Your task to perform on an android device: check data usage Image 0: 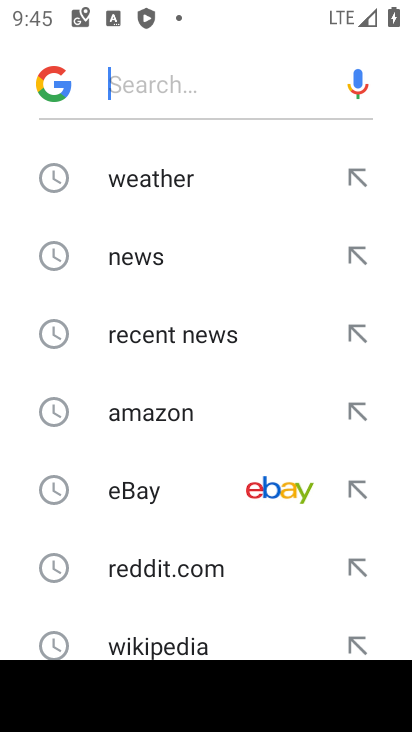
Step 0: press home button
Your task to perform on an android device: check data usage Image 1: 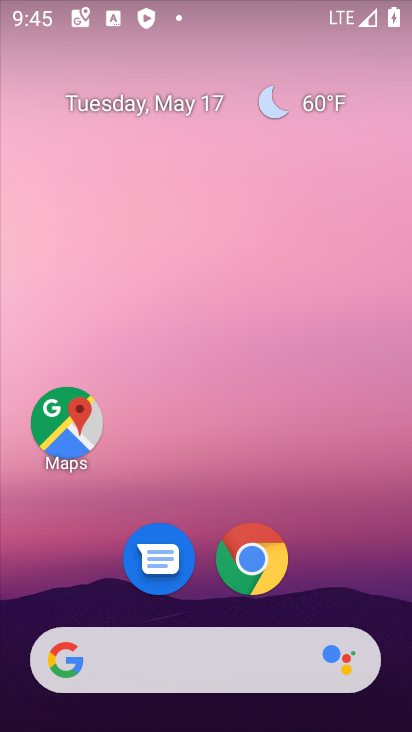
Step 1: drag from (205, 606) to (236, 140)
Your task to perform on an android device: check data usage Image 2: 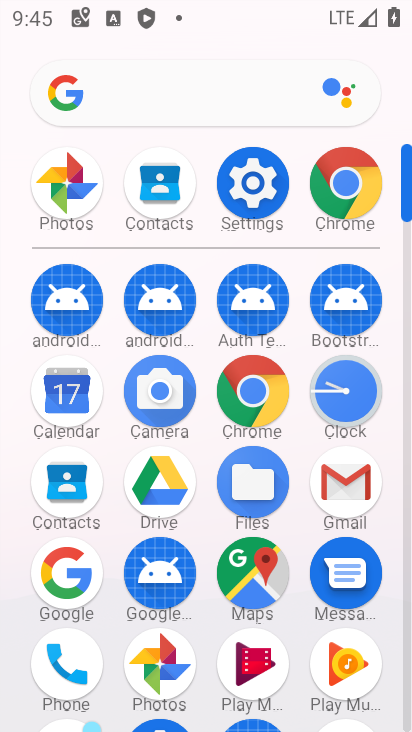
Step 2: click (243, 174)
Your task to perform on an android device: check data usage Image 3: 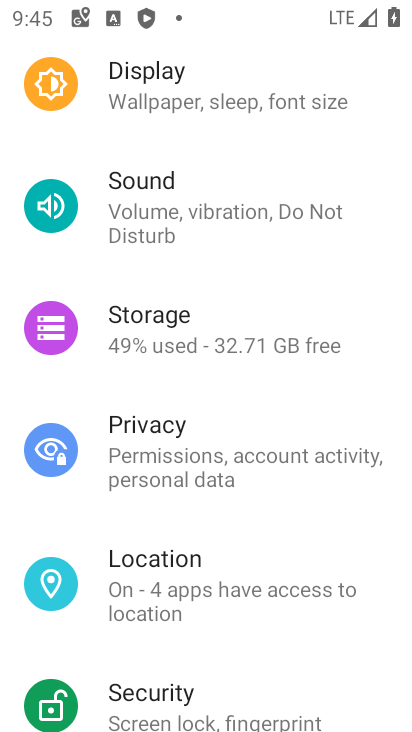
Step 3: drag from (223, 158) to (213, 634)
Your task to perform on an android device: check data usage Image 4: 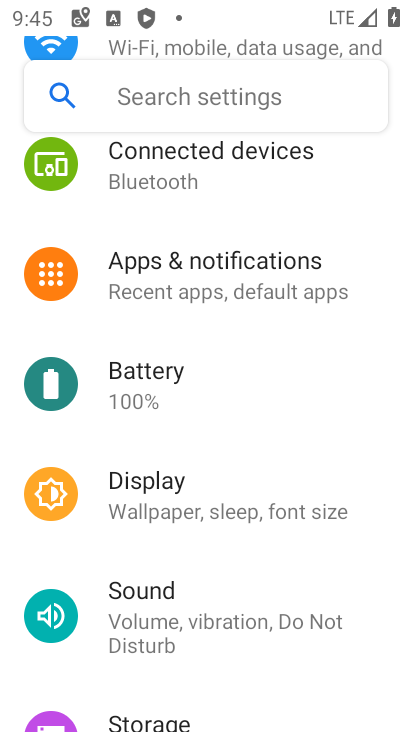
Step 4: drag from (210, 201) to (245, 574)
Your task to perform on an android device: check data usage Image 5: 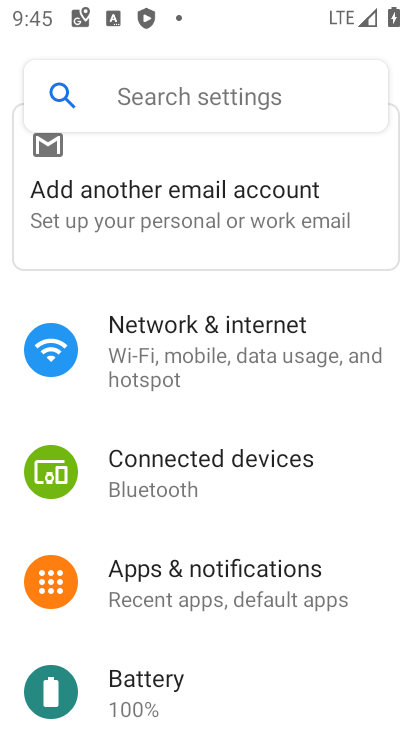
Step 5: click (209, 314)
Your task to perform on an android device: check data usage Image 6: 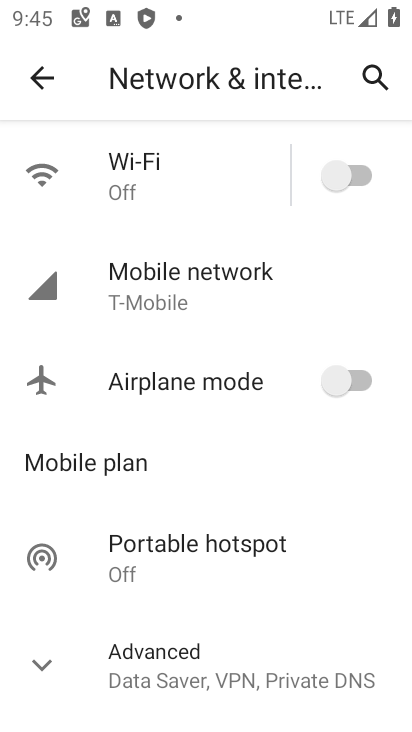
Step 6: click (209, 313)
Your task to perform on an android device: check data usage Image 7: 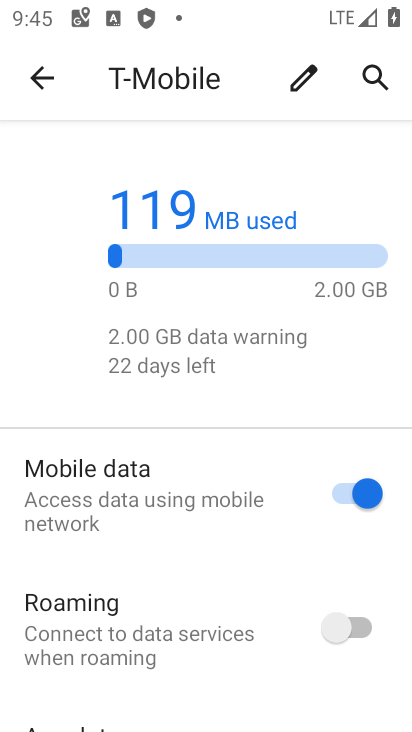
Step 7: drag from (256, 593) to (263, 378)
Your task to perform on an android device: check data usage Image 8: 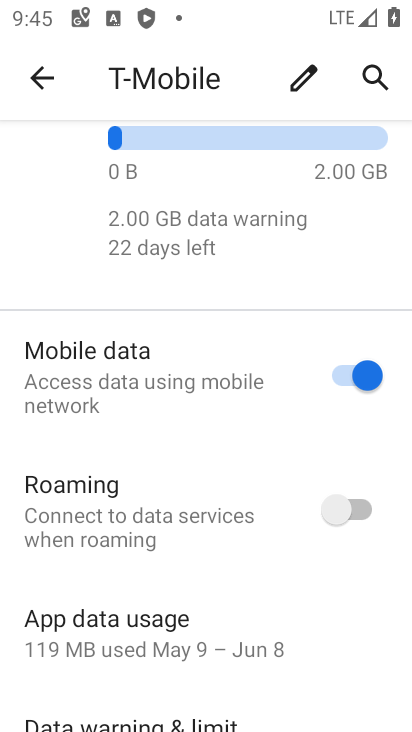
Step 8: drag from (162, 352) to (241, 352)
Your task to perform on an android device: check data usage Image 9: 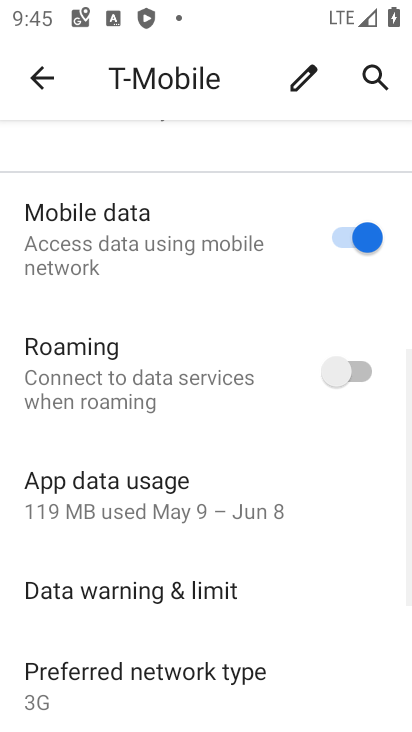
Step 9: click (200, 479)
Your task to perform on an android device: check data usage Image 10: 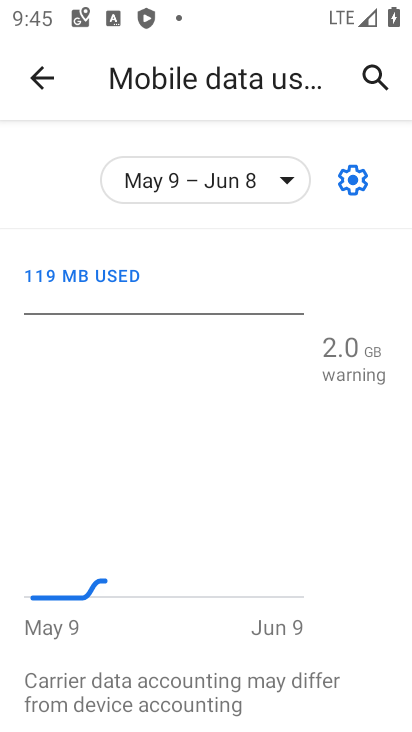
Step 10: task complete